Your task to perform on an android device: Check the weather Image 0: 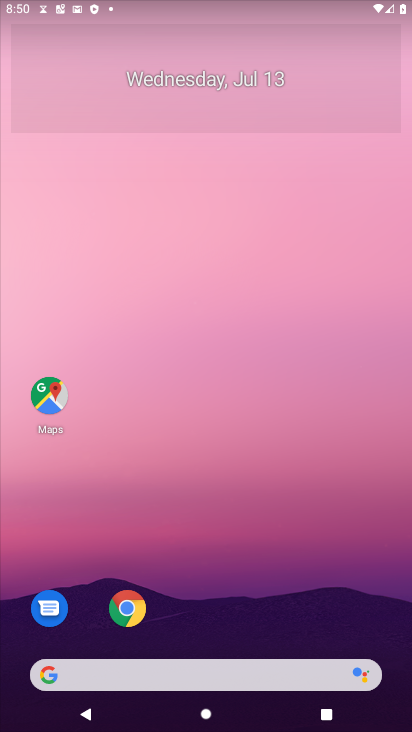
Step 0: drag from (228, 630) to (382, 50)
Your task to perform on an android device: Check the weather Image 1: 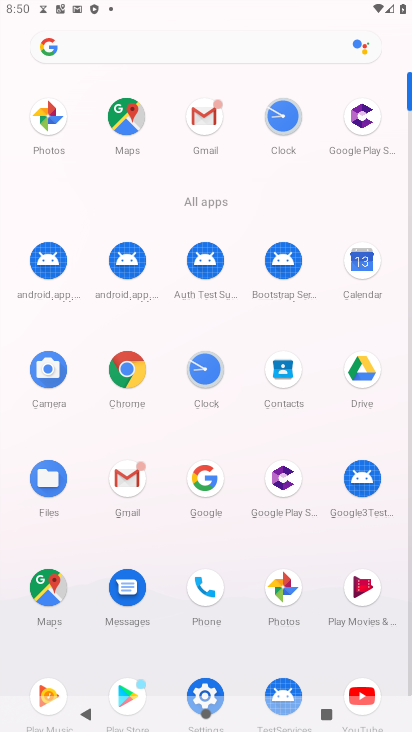
Step 1: click (199, 479)
Your task to perform on an android device: Check the weather Image 2: 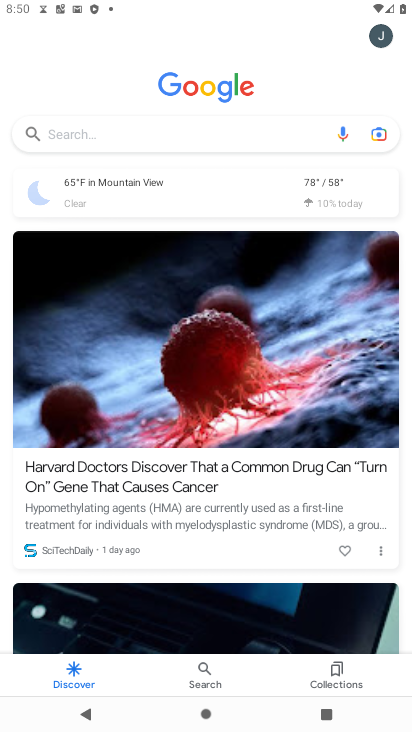
Step 2: click (233, 183)
Your task to perform on an android device: Check the weather Image 3: 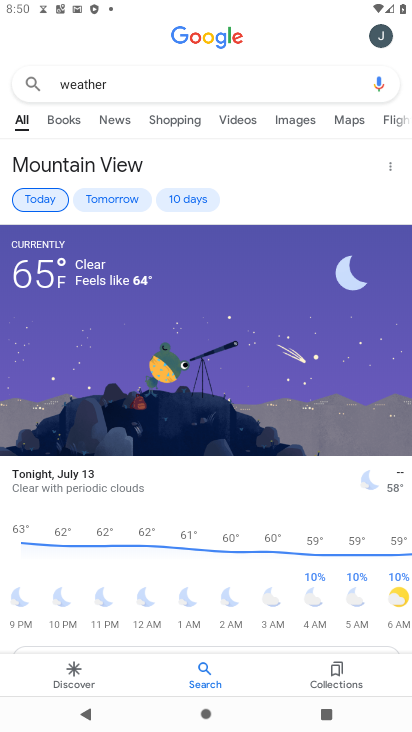
Step 3: task complete